Your task to perform on an android device: What's on my calendar tomorrow? Image 0: 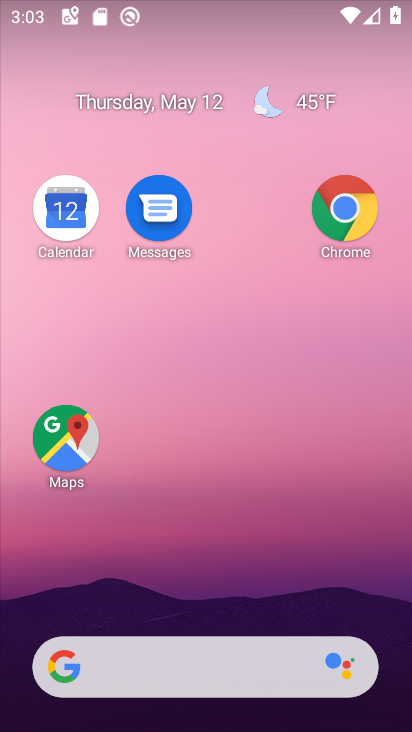
Step 0: click (410, 280)
Your task to perform on an android device: What's on my calendar tomorrow? Image 1: 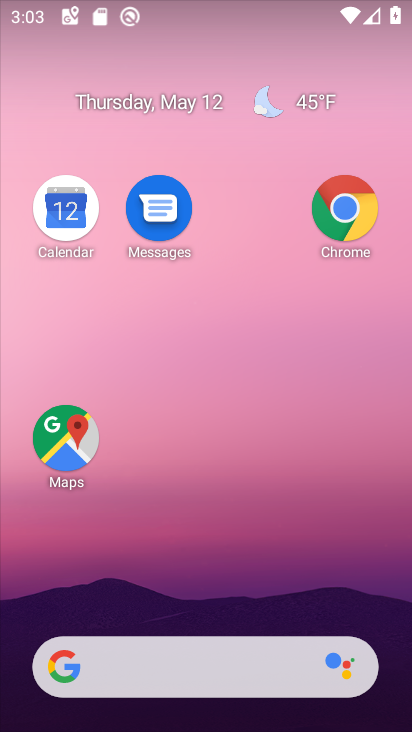
Step 1: drag from (187, 599) to (241, 190)
Your task to perform on an android device: What's on my calendar tomorrow? Image 2: 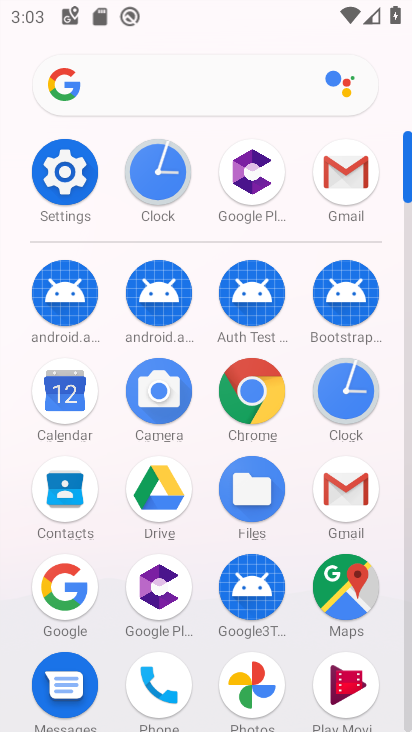
Step 2: click (53, 399)
Your task to perform on an android device: What's on my calendar tomorrow? Image 3: 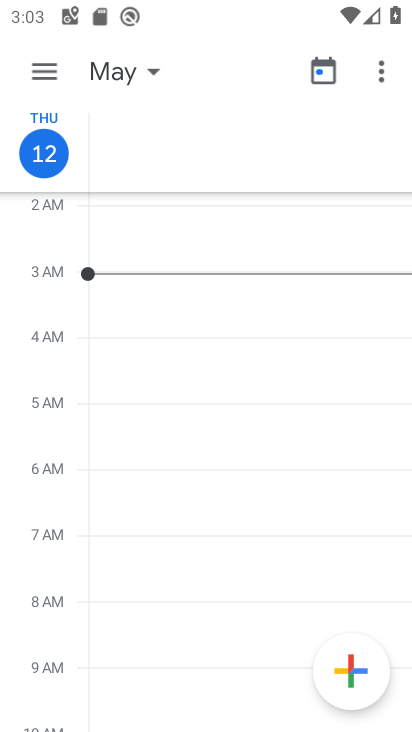
Step 3: click (150, 81)
Your task to perform on an android device: What's on my calendar tomorrow? Image 4: 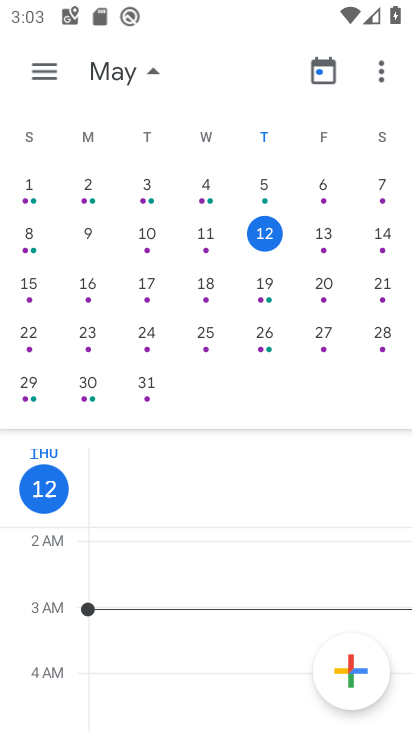
Step 4: click (313, 236)
Your task to perform on an android device: What's on my calendar tomorrow? Image 5: 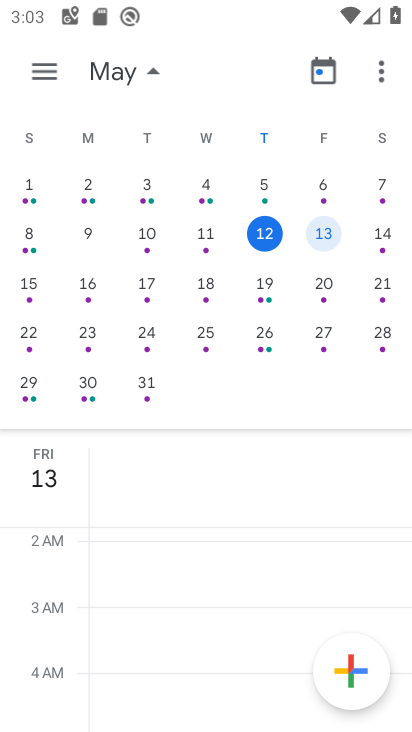
Step 5: task complete